Your task to perform on an android device: Add razer deathadder to the cart on bestbuy Image 0: 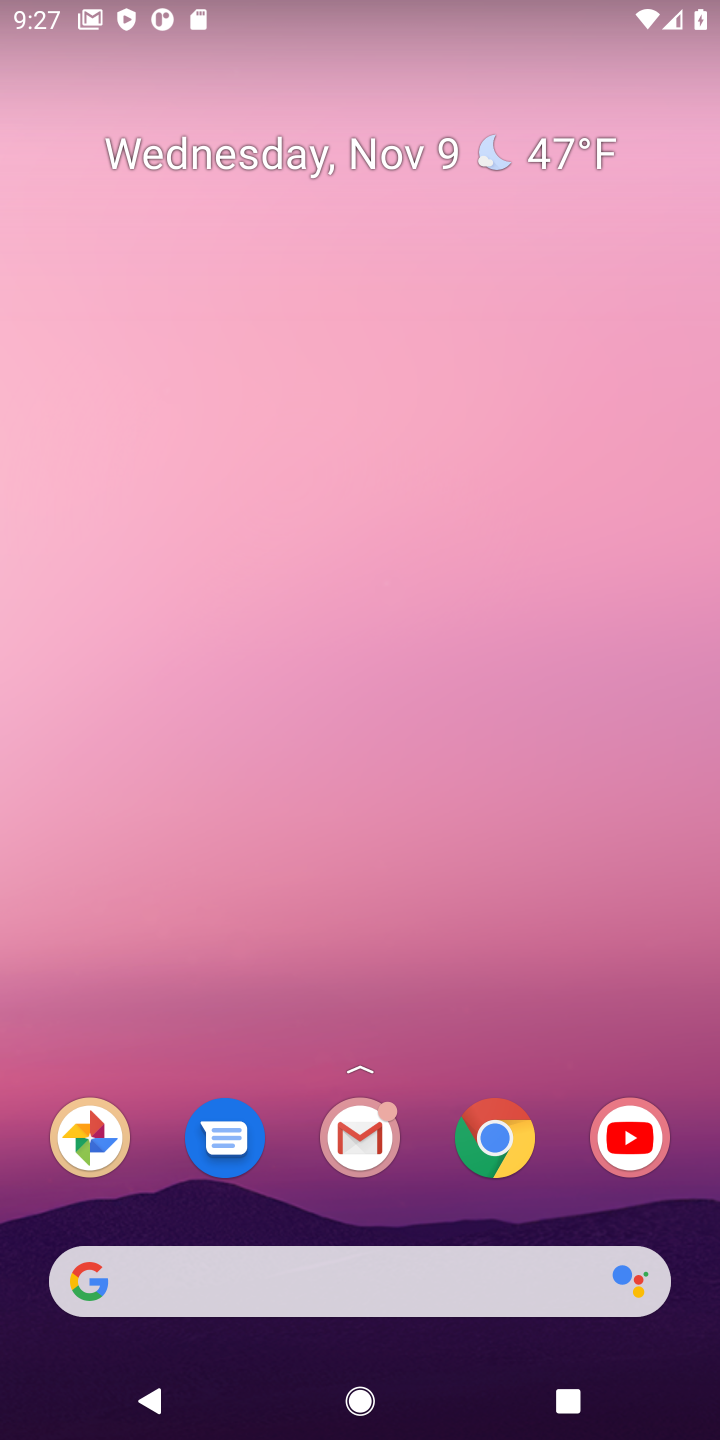
Step 0: drag from (418, 1211) to (335, 69)
Your task to perform on an android device: Add razer deathadder to the cart on bestbuy Image 1: 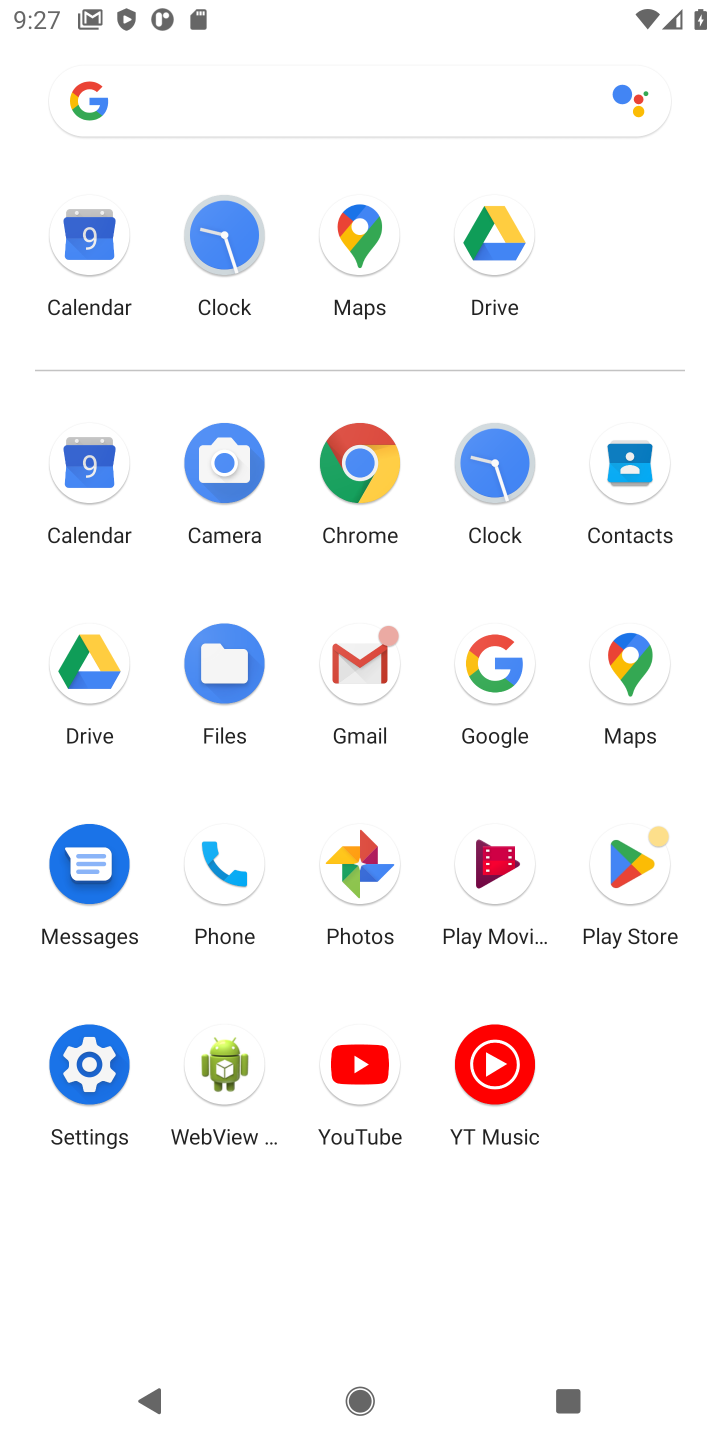
Step 1: click (368, 463)
Your task to perform on an android device: Add razer deathadder to the cart on bestbuy Image 2: 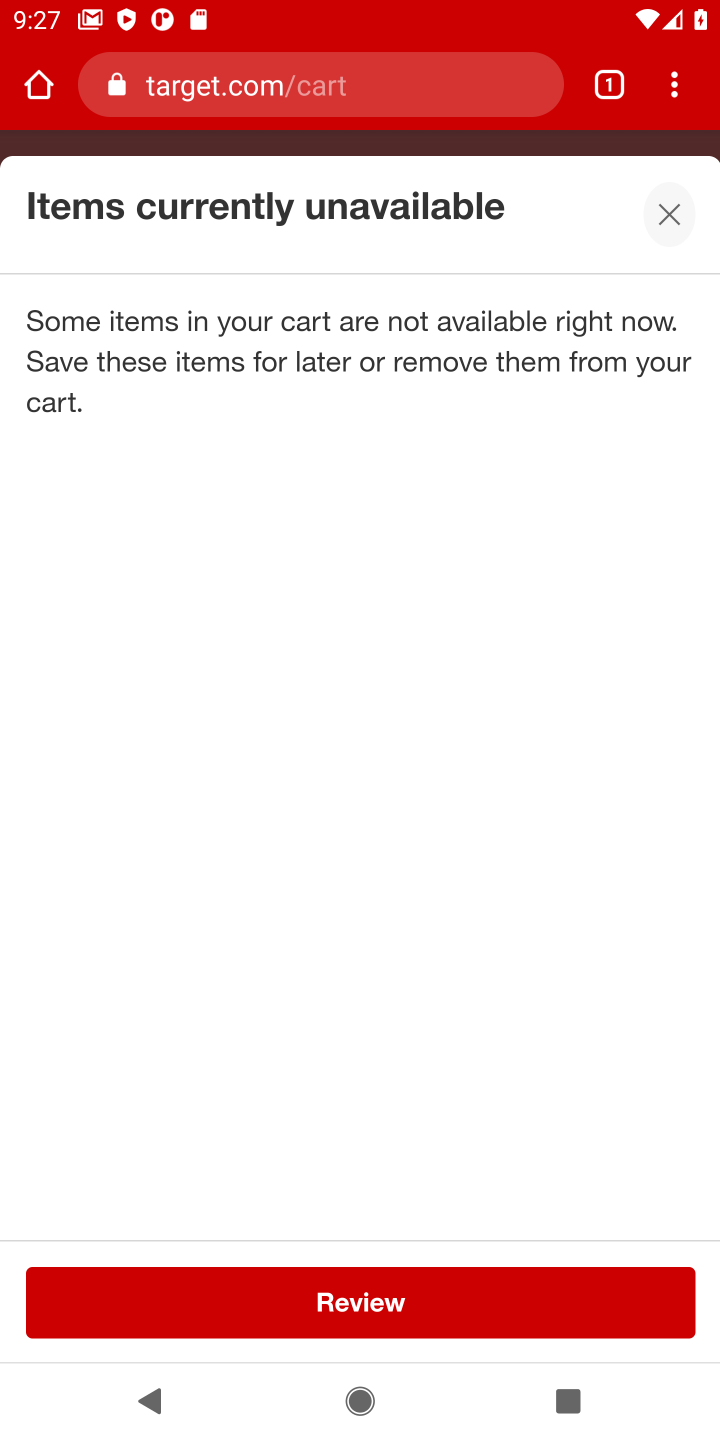
Step 2: click (400, 107)
Your task to perform on an android device: Add razer deathadder to the cart on bestbuy Image 3: 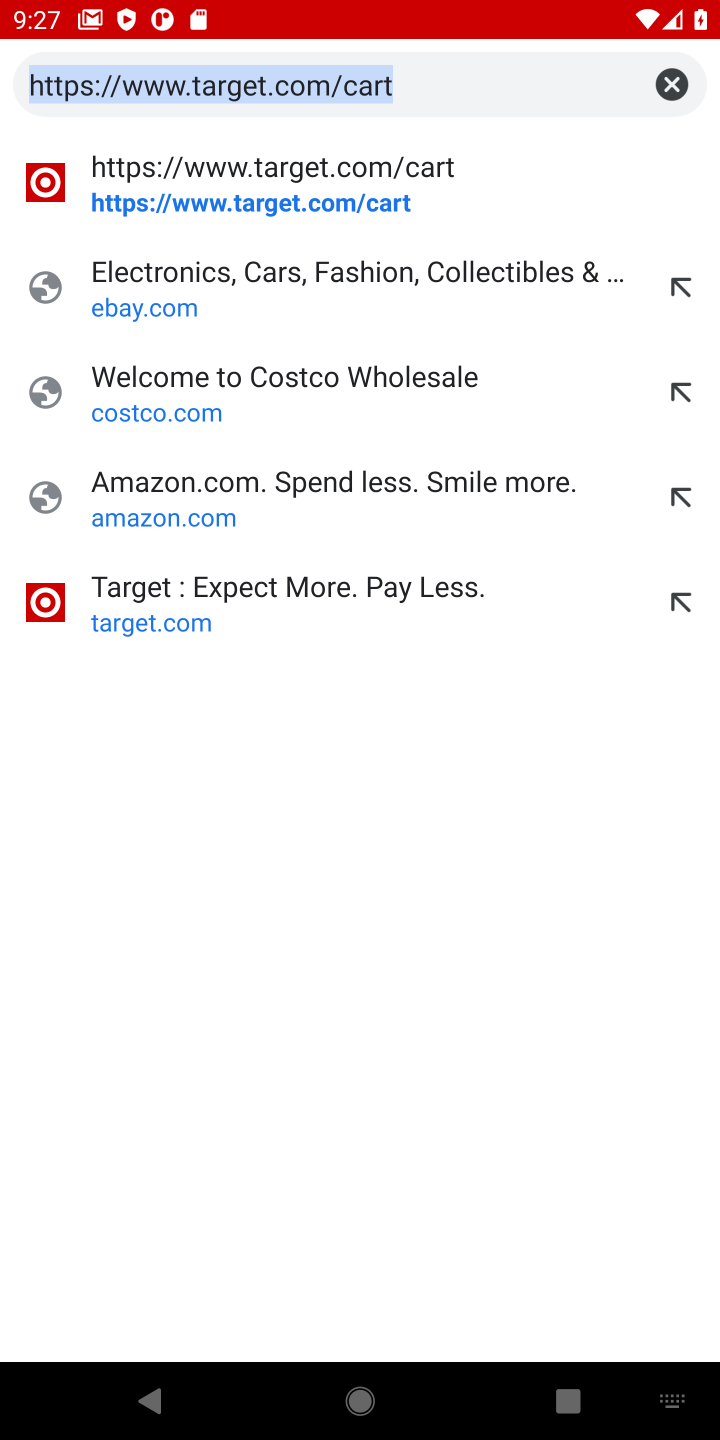
Step 3: type "bestbuy.com"
Your task to perform on an android device: Add razer deathadder to the cart on bestbuy Image 4: 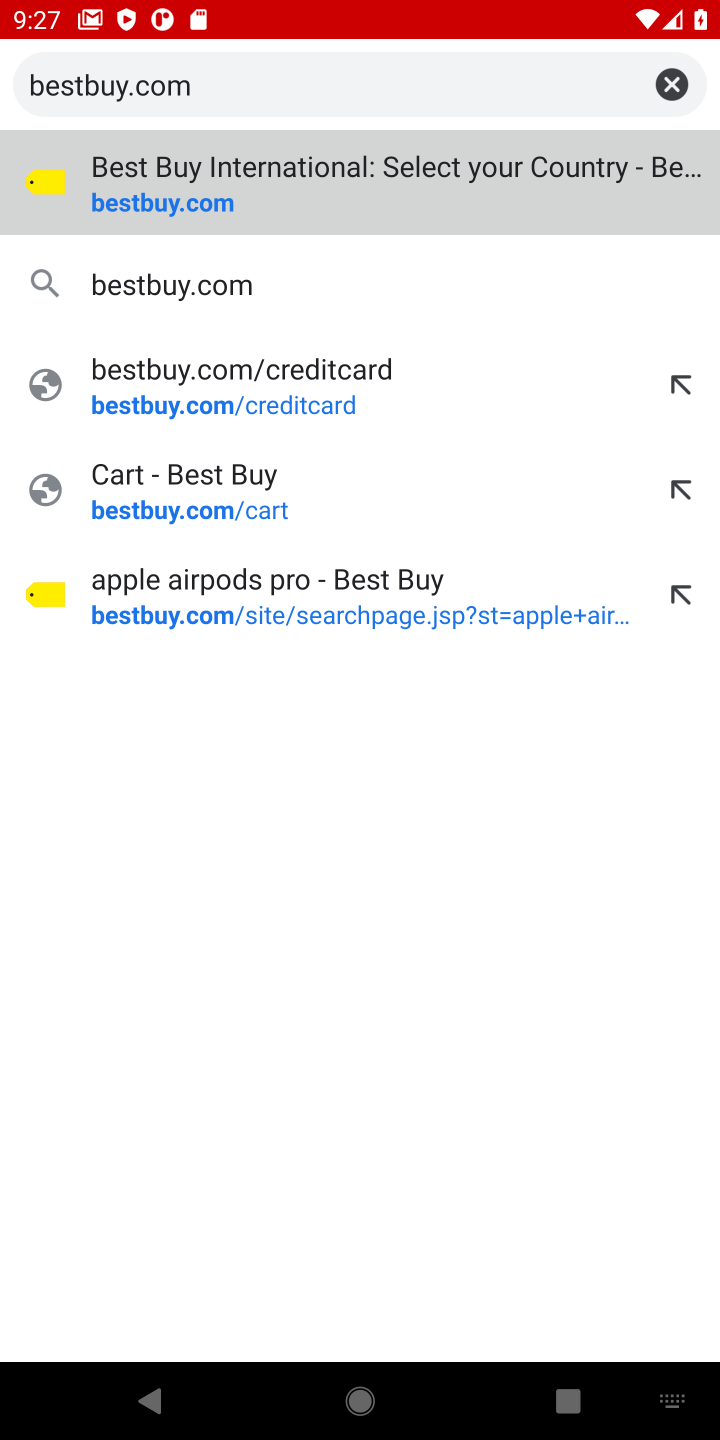
Step 4: press enter
Your task to perform on an android device: Add razer deathadder to the cart on bestbuy Image 5: 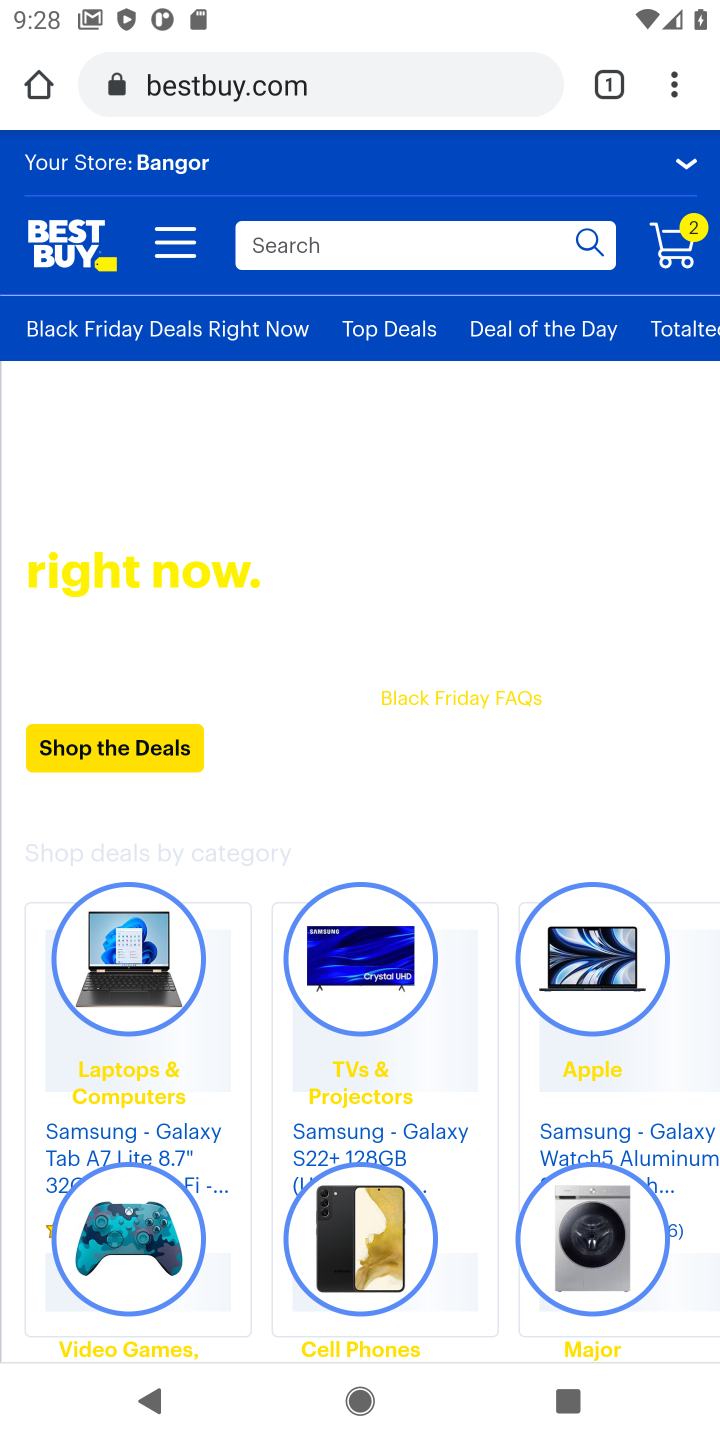
Step 5: click (501, 273)
Your task to perform on an android device: Add razer deathadder to the cart on bestbuy Image 6: 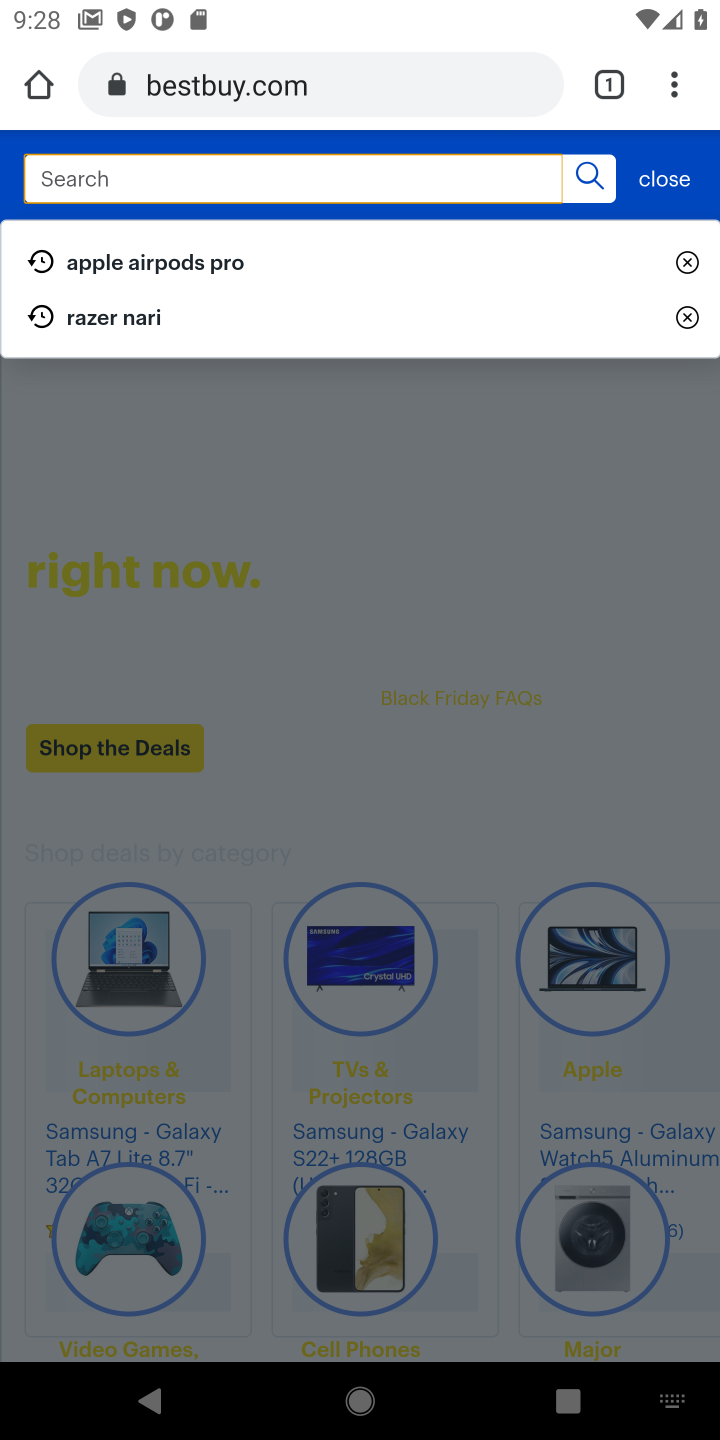
Step 6: type "razer deathadder"
Your task to perform on an android device: Add razer deathadder to the cart on bestbuy Image 7: 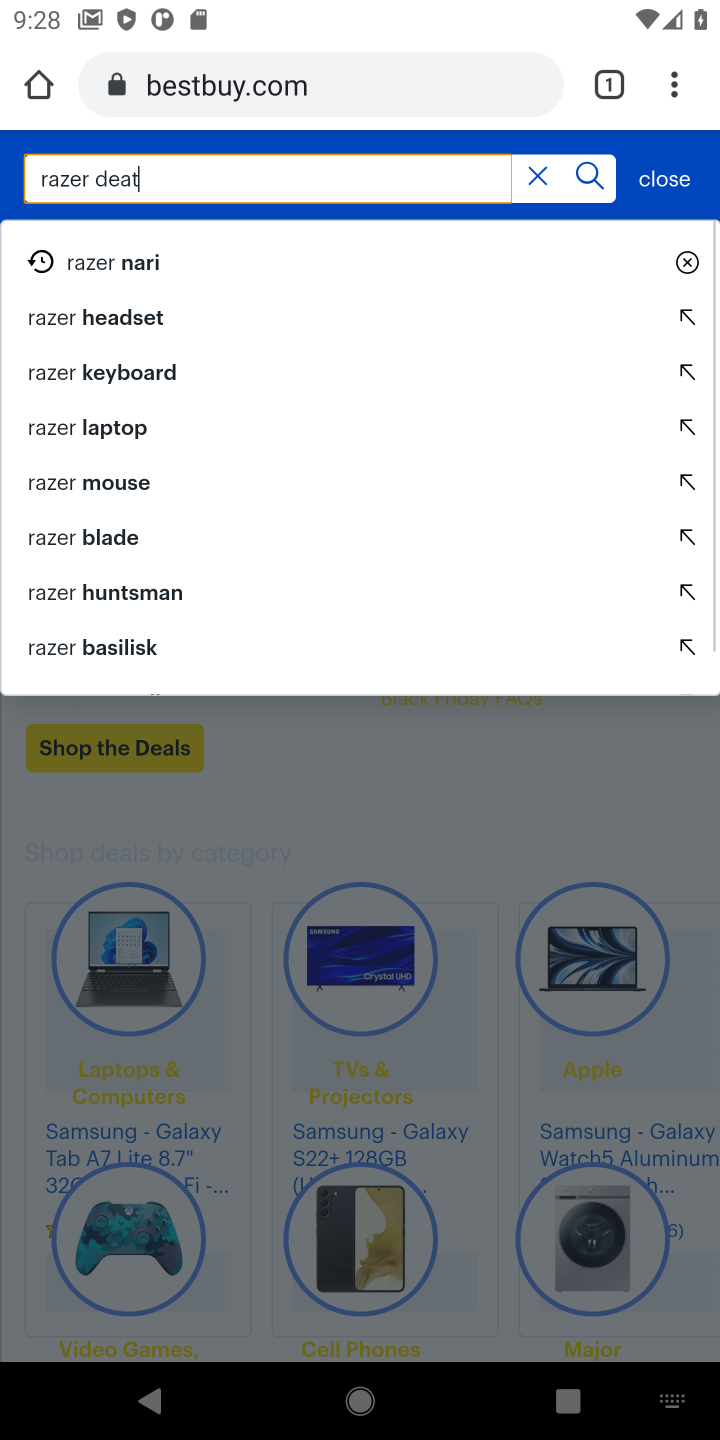
Step 7: press enter
Your task to perform on an android device: Add razer deathadder to the cart on bestbuy Image 8: 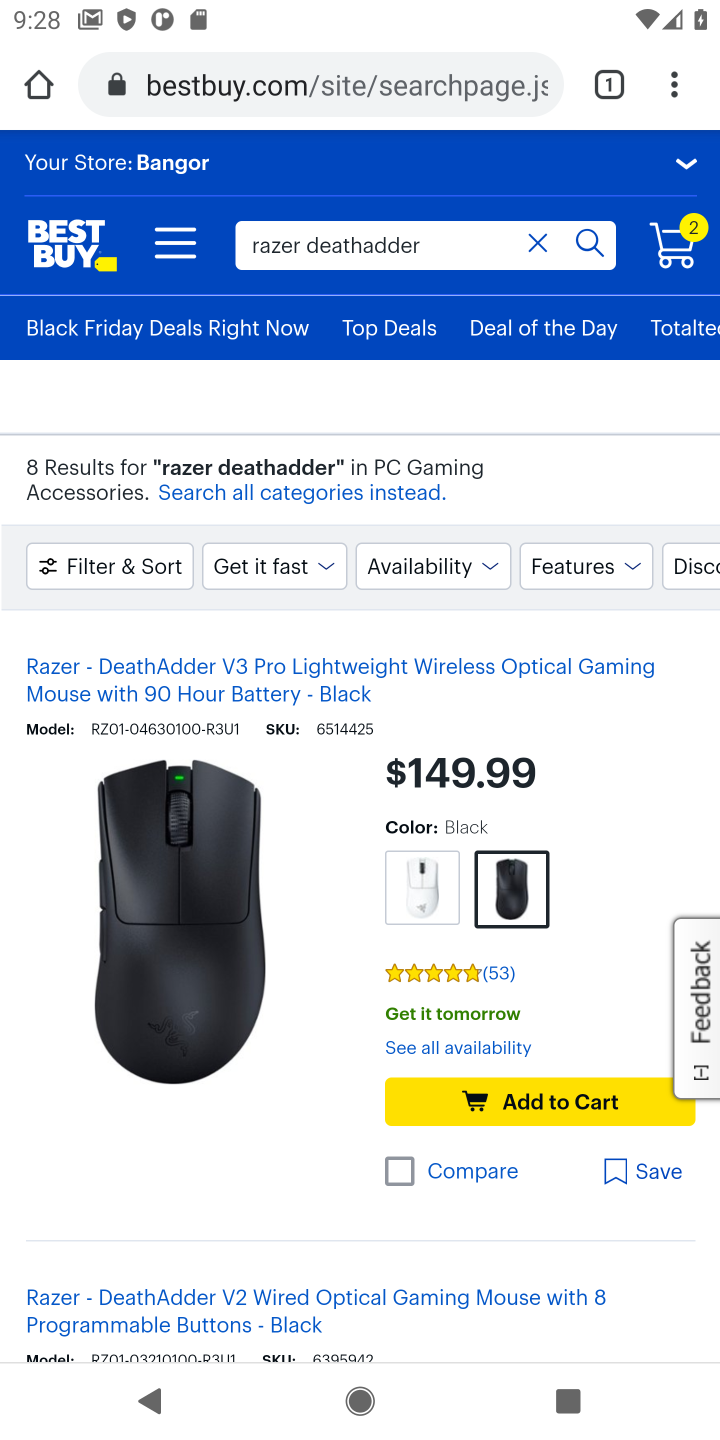
Step 8: click (521, 1090)
Your task to perform on an android device: Add razer deathadder to the cart on bestbuy Image 9: 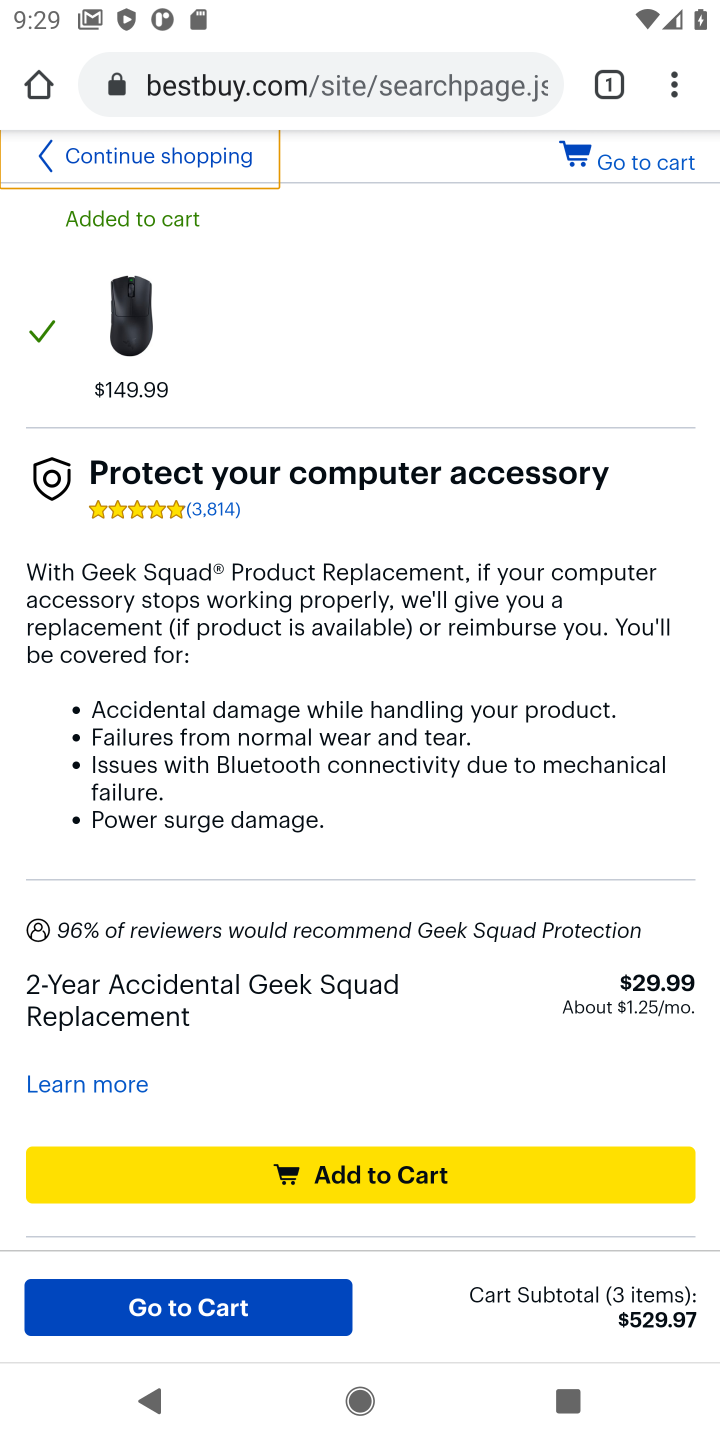
Step 9: task complete